Your task to perform on an android device: Open wifi settings Image 0: 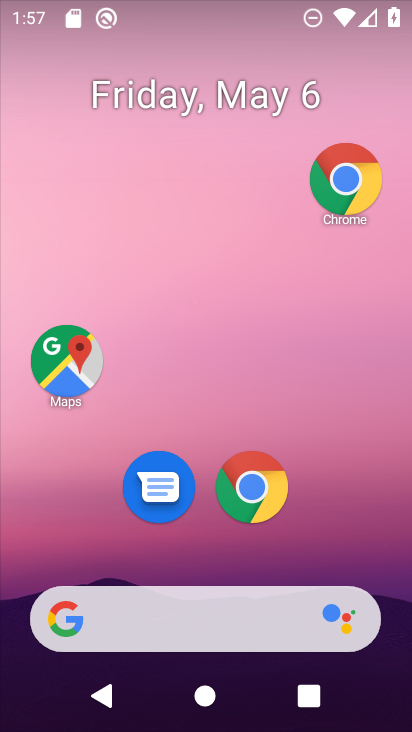
Step 0: drag from (330, 515) to (317, 109)
Your task to perform on an android device: Open wifi settings Image 1: 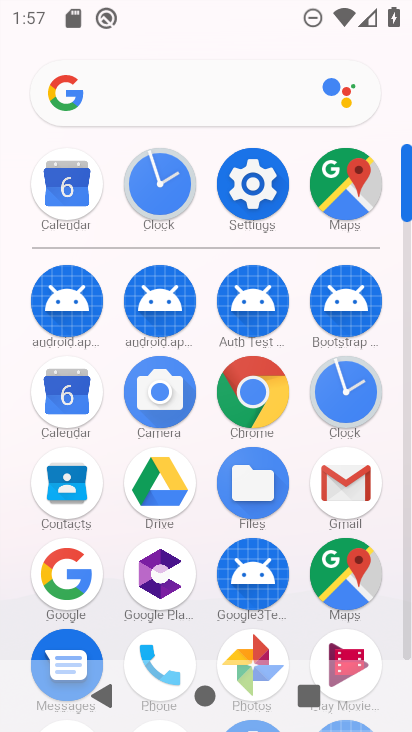
Step 1: click (261, 220)
Your task to perform on an android device: Open wifi settings Image 2: 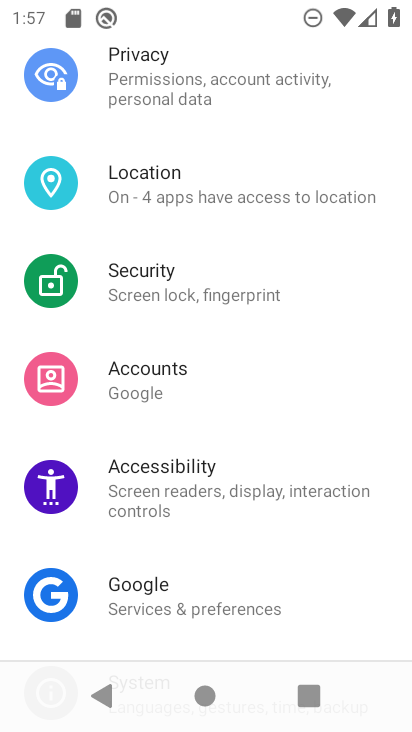
Step 2: drag from (287, 247) to (318, 667)
Your task to perform on an android device: Open wifi settings Image 3: 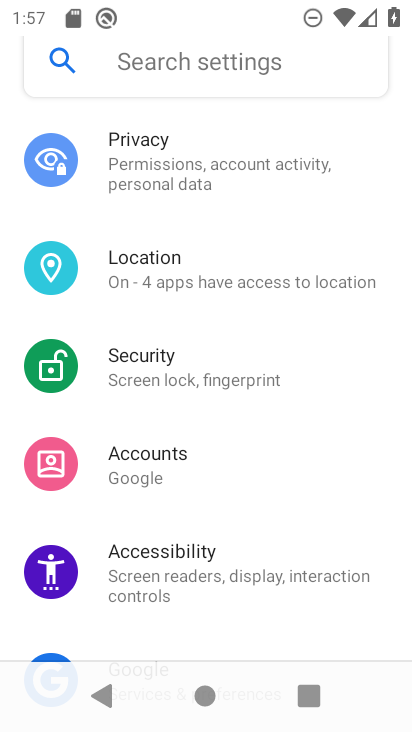
Step 3: drag from (259, 258) to (279, 684)
Your task to perform on an android device: Open wifi settings Image 4: 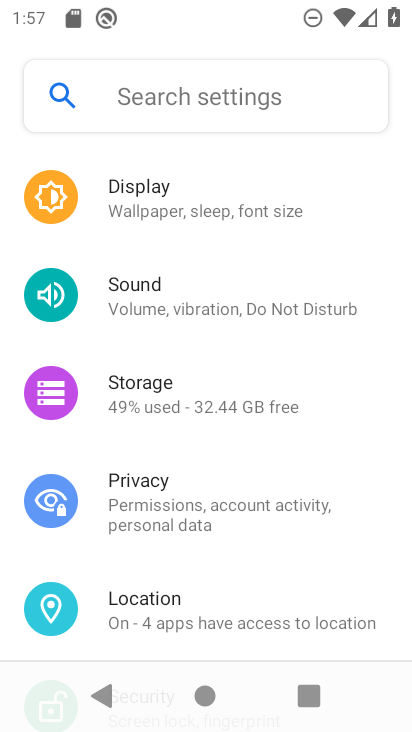
Step 4: drag from (279, 230) to (323, 528)
Your task to perform on an android device: Open wifi settings Image 5: 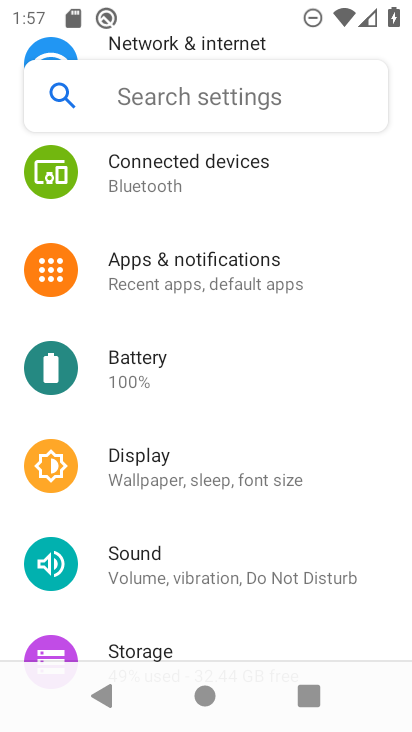
Step 5: drag from (300, 220) to (332, 562)
Your task to perform on an android device: Open wifi settings Image 6: 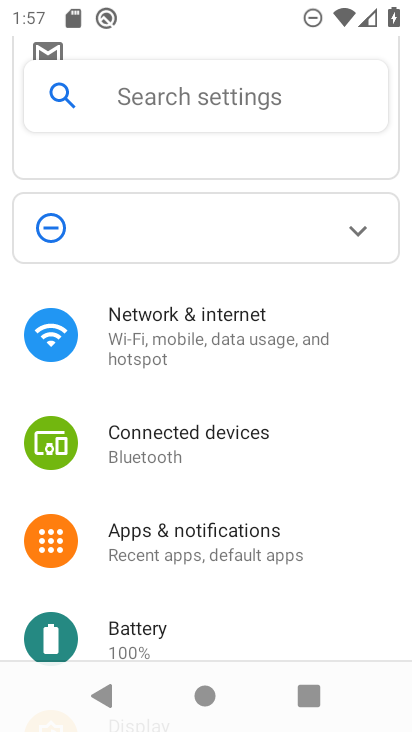
Step 6: click (264, 334)
Your task to perform on an android device: Open wifi settings Image 7: 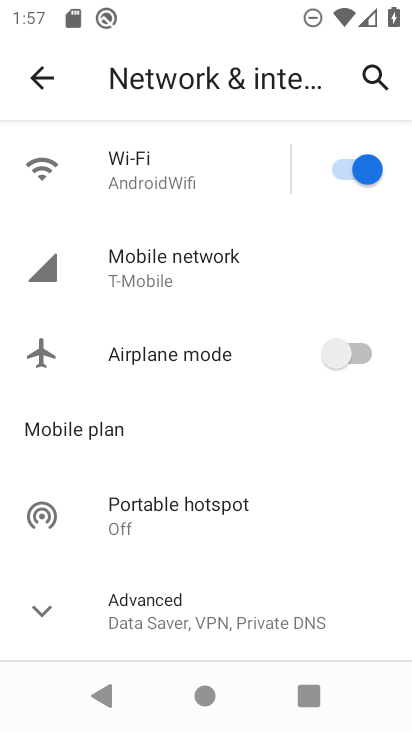
Step 7: task complete